Your task to perform on an android device: delete browsing data in the chrome app Image 0: 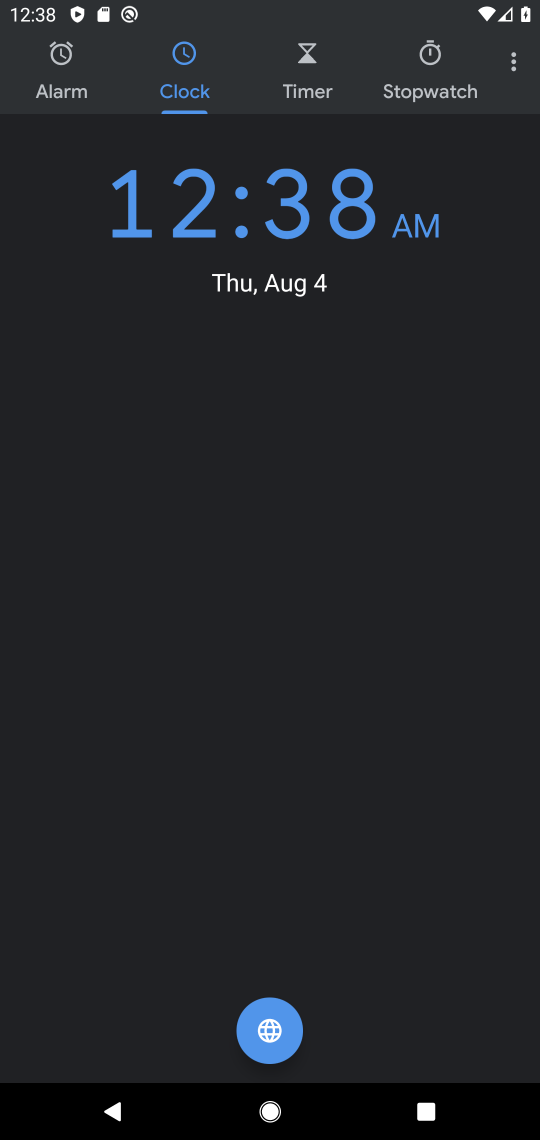
Step 0: press home button
Your task to perform on an android device: delete browsing data in the chrome app Image 1: 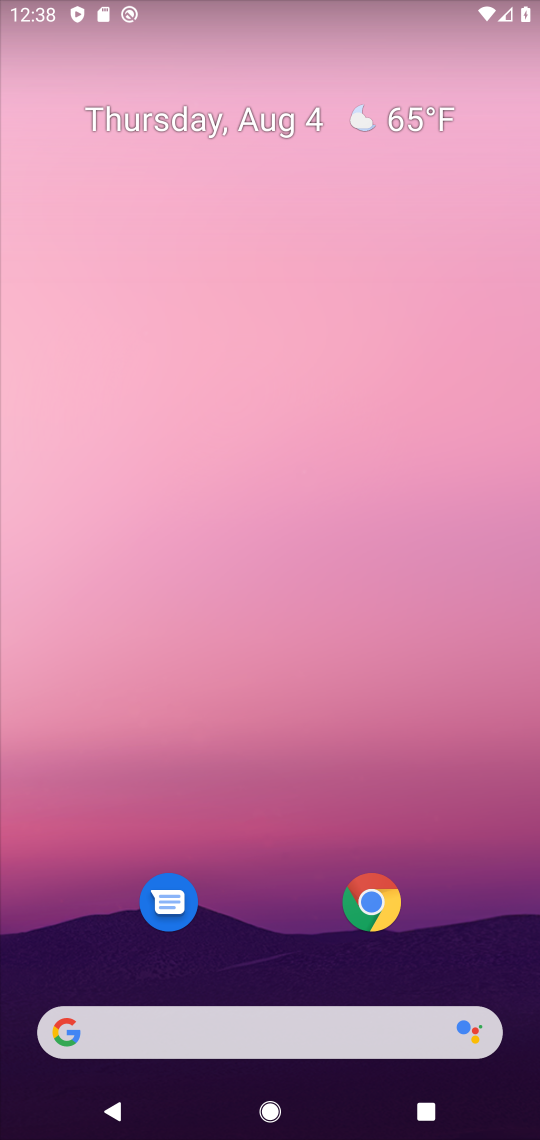
Step 1: click (374, 903)
Your task to perform on an android device: delete browsing data in the chrome app Image 2: 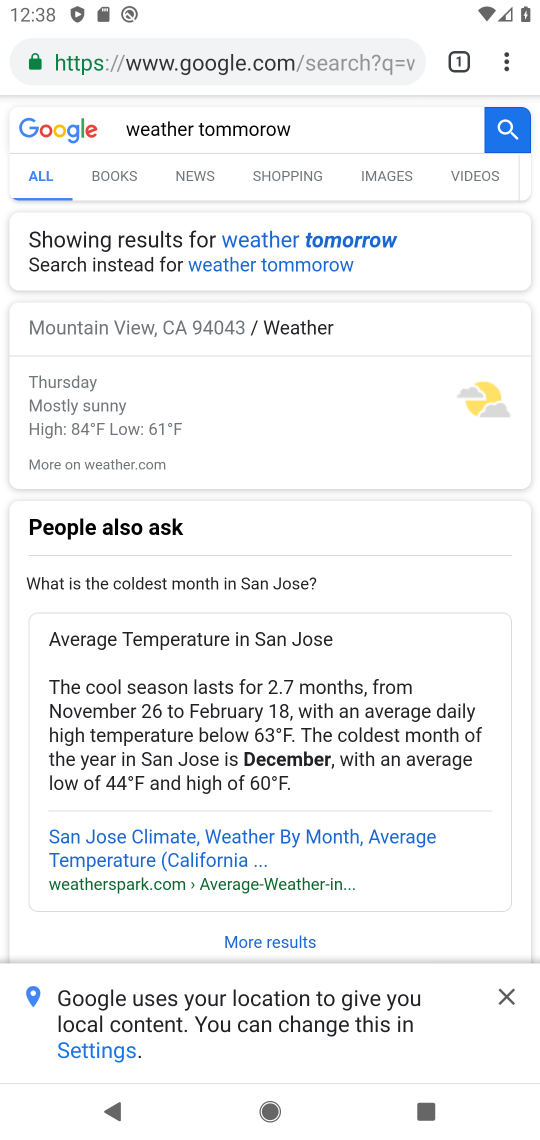
Step 2: click (496, 69)
Your task to perform on an android device: delete browsing data in the chrome app Image 3: 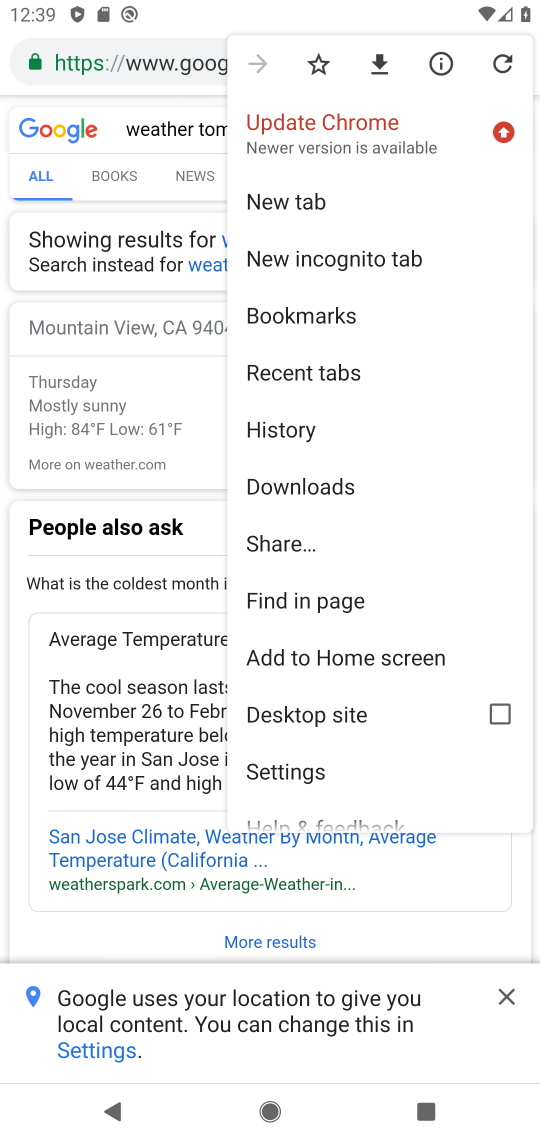
Step 3: click (290, 425)
Your task to perform on an android device: delete browsing data in the chrome app Image 4: 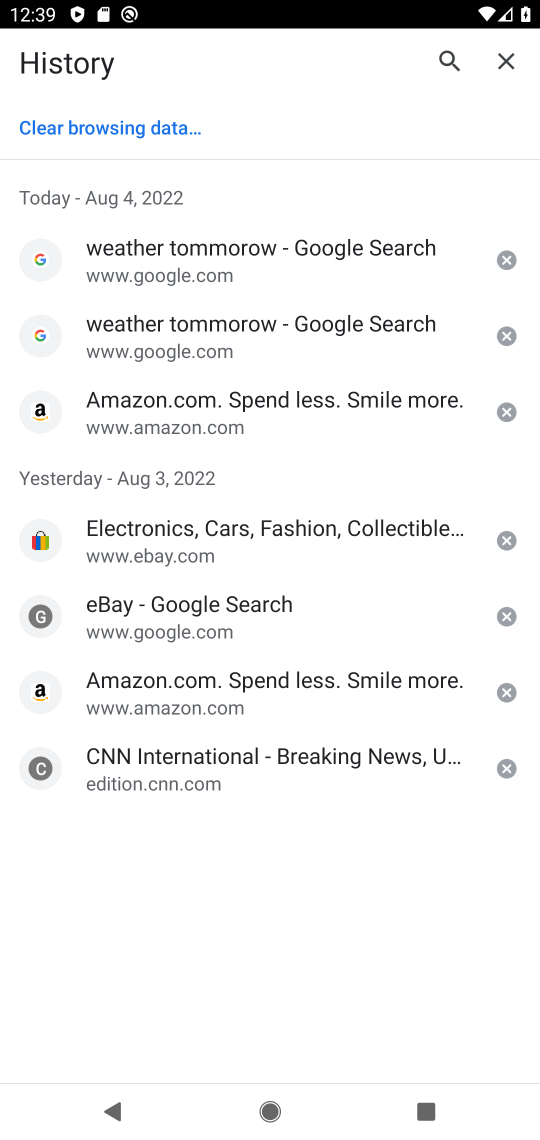
Step 4: click (106, 132)
Your task to perform on an android device: delete browsing data in the chrome app Image 5: 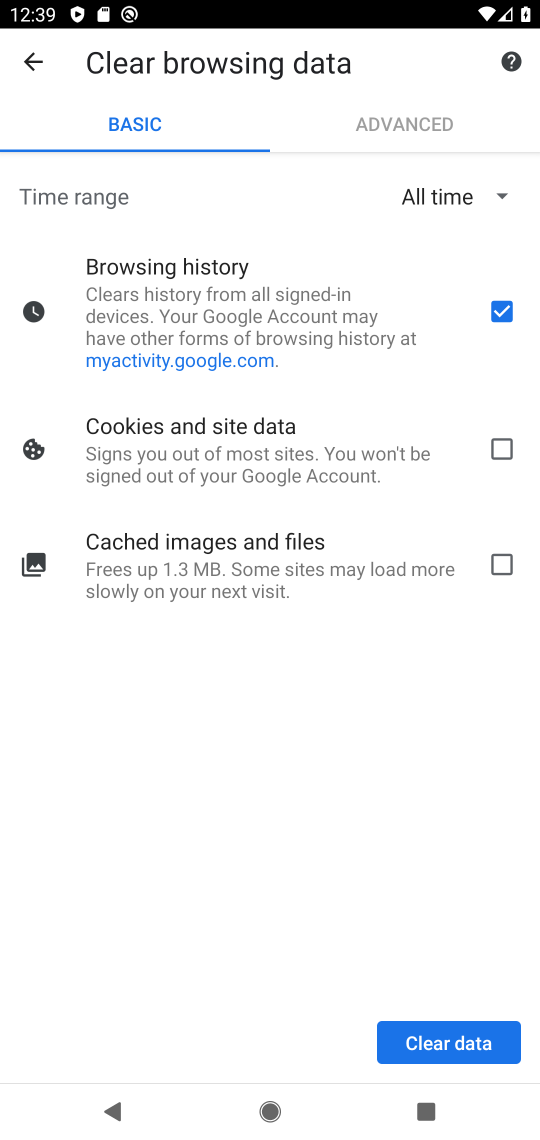
Step 5: click (427, 1041)
Your task to perform on an android device: delete browsing data in the chrome app Image 6: 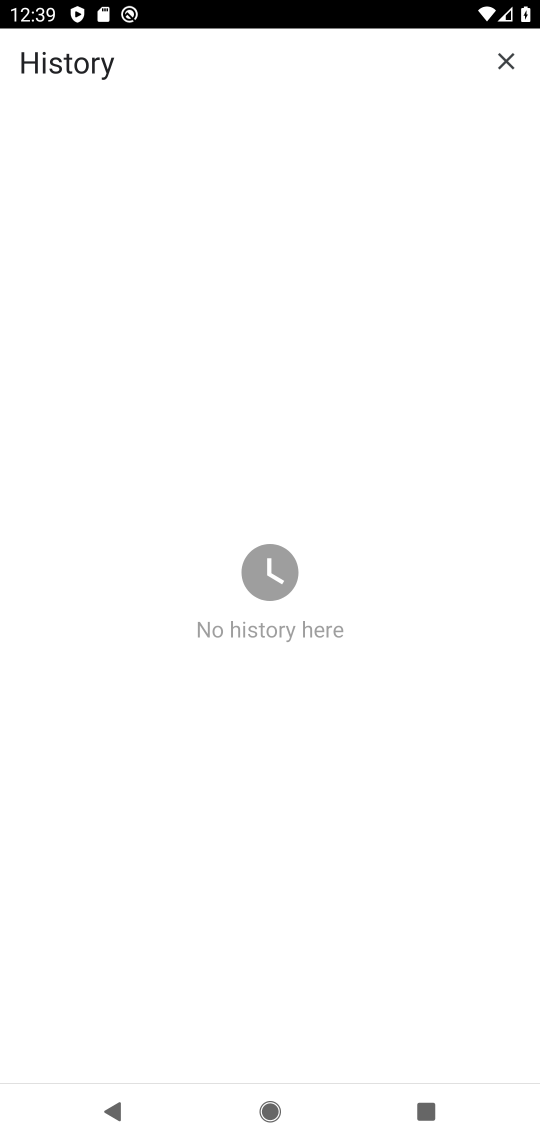
Step 6: task complete